Your task to perform on an android device: toggle notification dots Image 0: 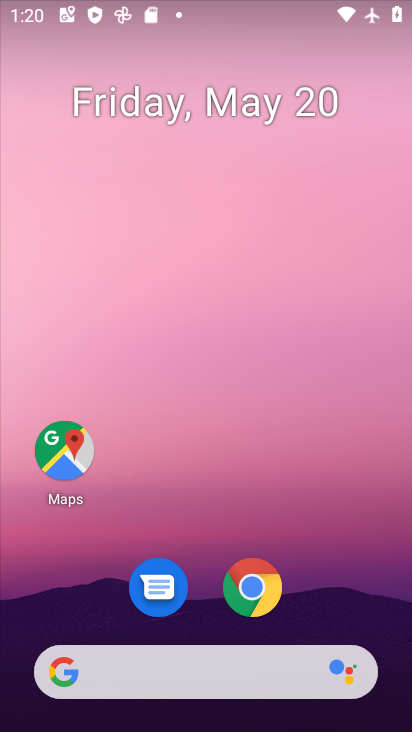
Step 0: drag from (324, 535) to (232, 62)
Your task to perform on an android device: toggle notification dots Image 1: 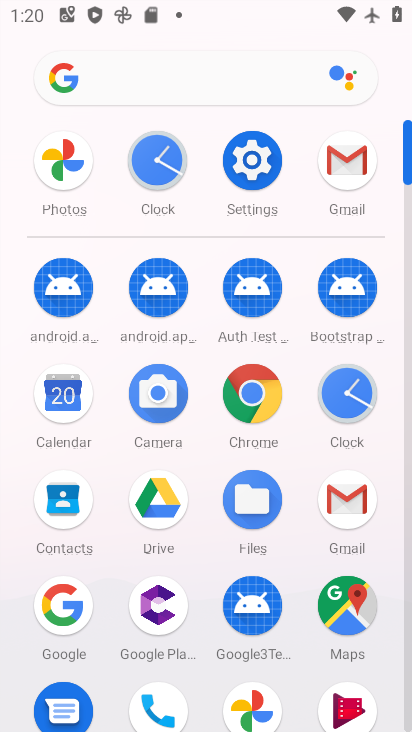
Step 1: click (252, 159)
Your task to perform on an android device: toggle notification dots Image 2: 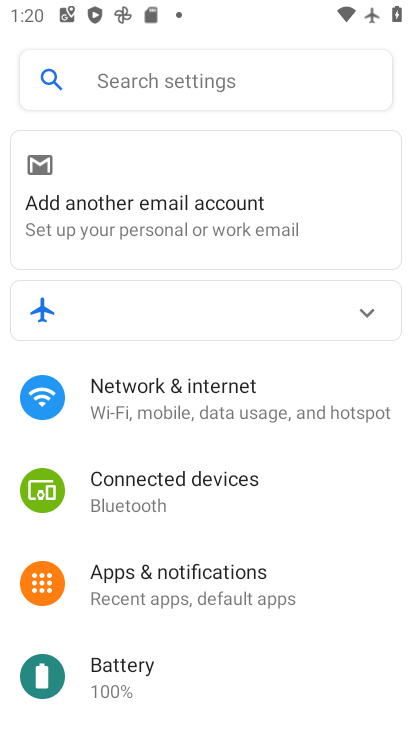
Step 2: click (214, 575)
Your task to perform on an android device: toggle notification dots Image 3: 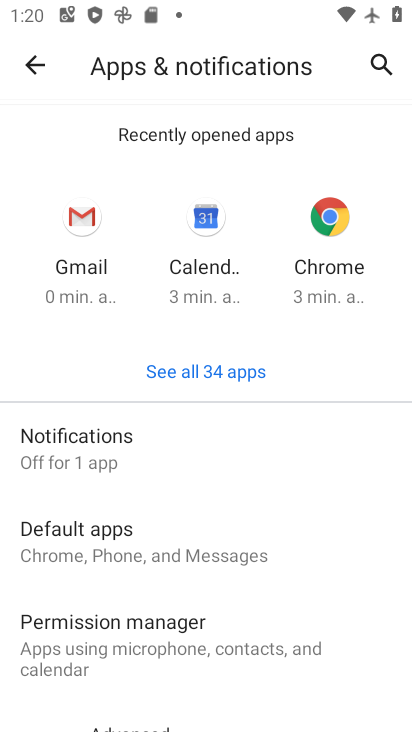
Step 3: drag from (300, 482) to (253, 131)
Your task to perform on an android device: toggle notification dots Image 4: 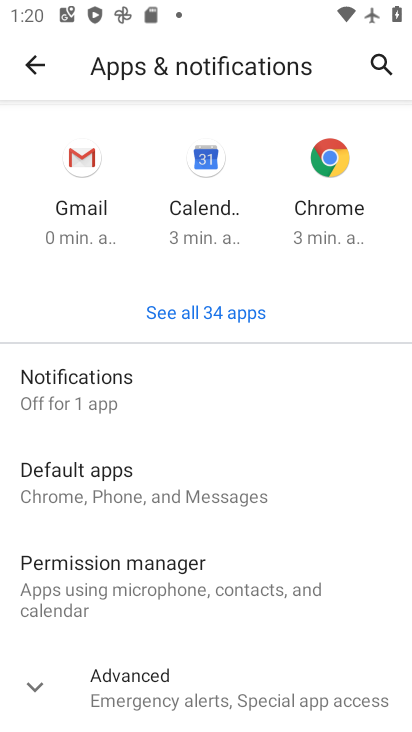
Step 4: click (49, 680)
Your task to perform on an android device: toggle notification dots Image 5: 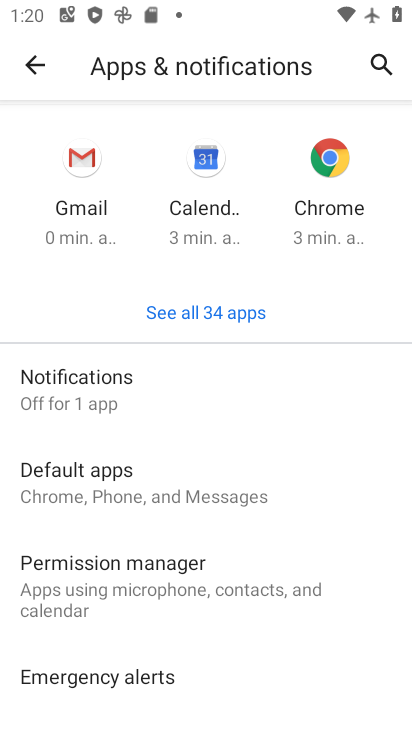
Step 5: drag from (221, 608) to (127, 233)
Your task to perform on an android device: toggle notification dots Image 6: 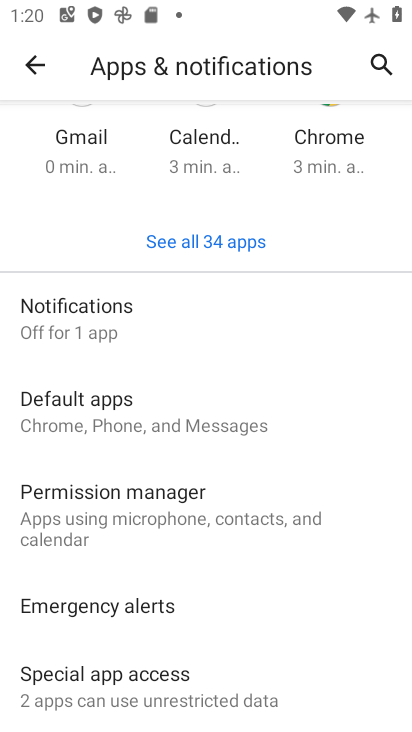
Step 6: click (88, 295)
Your task to perform on an android device: toggle notification dots Image 7: 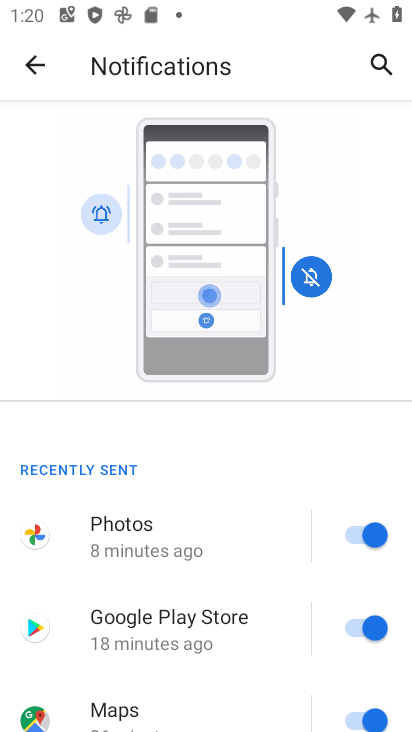
Step 7: drag from (264, 471) to (296, 119)
Your task to perform on an android device: toggle notification dots Image 8: 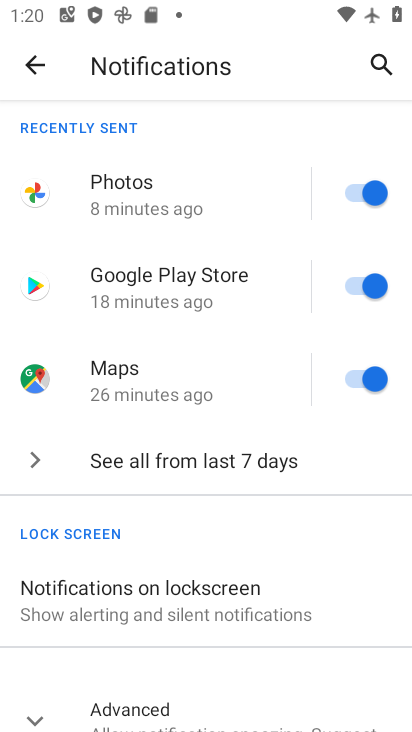
Step 8: drag from (264, 509) to (289, 243)
Your task to perform on an android device: toggle notification dots Image 9: 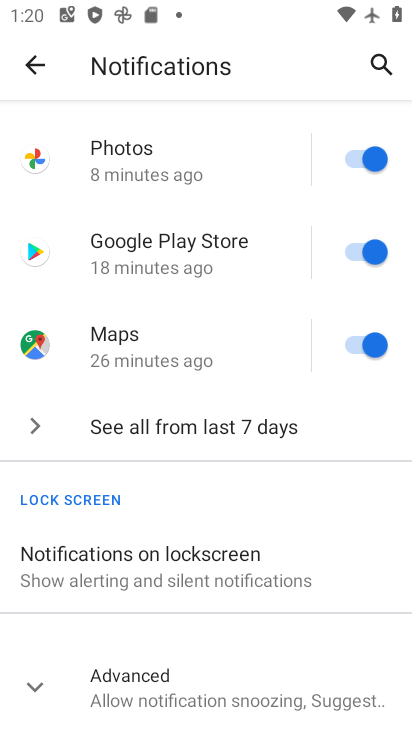
Step 9: click (22, 704)
Your task to perform on an android device: toggle notification dots Image 10: 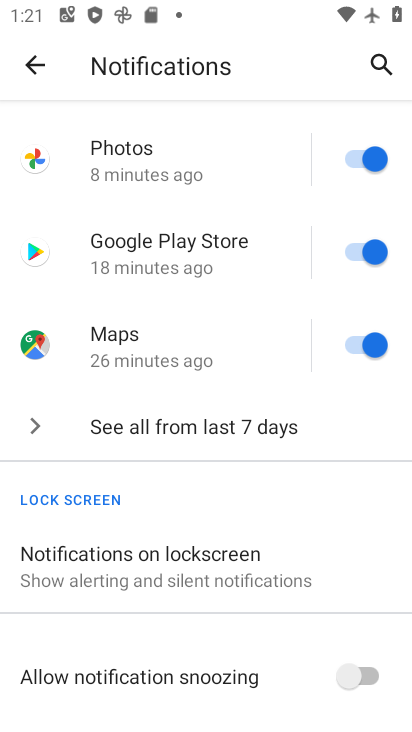
Step 10: click (182, 226)
Your task to perform on an android device: toggle notification dots Image 11: 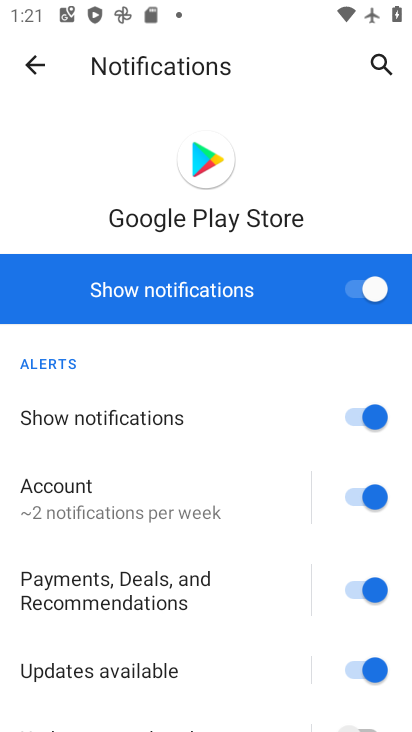
Step 11: click (34, 63)
Your task to perform on an android device: toggle notification dots Image 12: 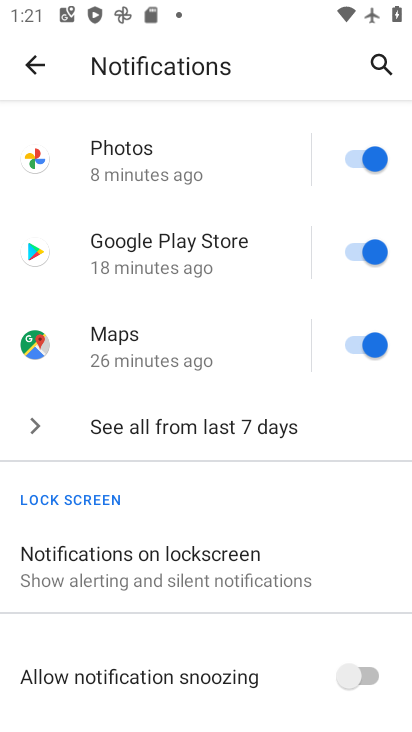
Step 12: drag from (281, 517) to (248, 140)
Your task to perform on an android device: toggle notification dots Image 13: 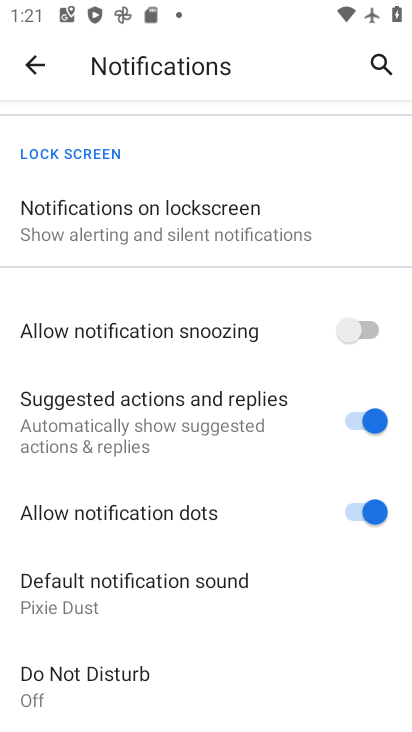
Step 13: click (375, 514)
Your task to perform on an android device: toggle notification dots Image 14: 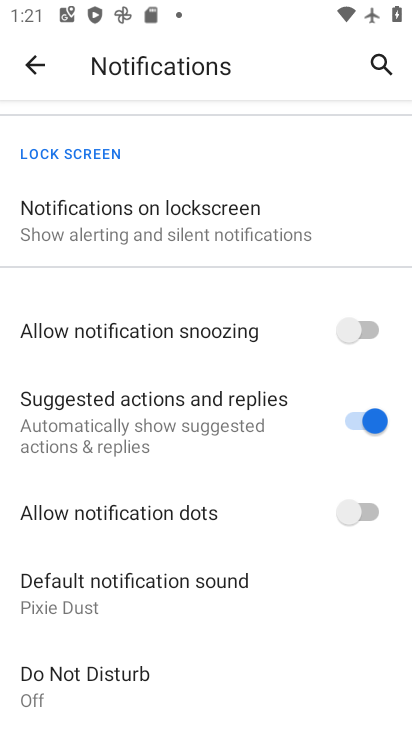
Step 14: task complete